Your task to perform on an android device: check the backup settings in the google photos Image 0: 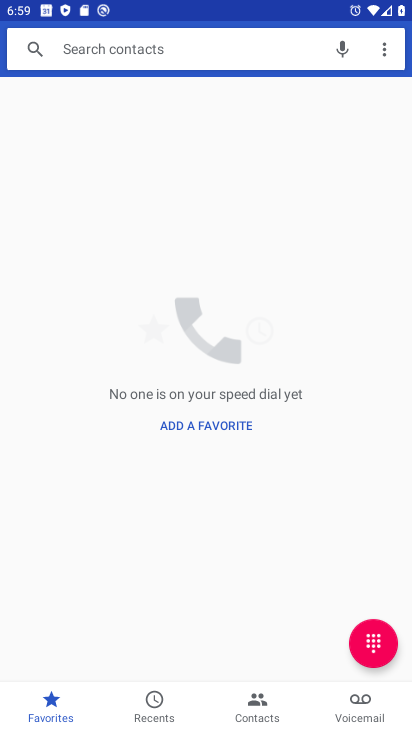
Step 0: press home button
Your task to perform on an android device: check the backup settings in the google photos Image 1: 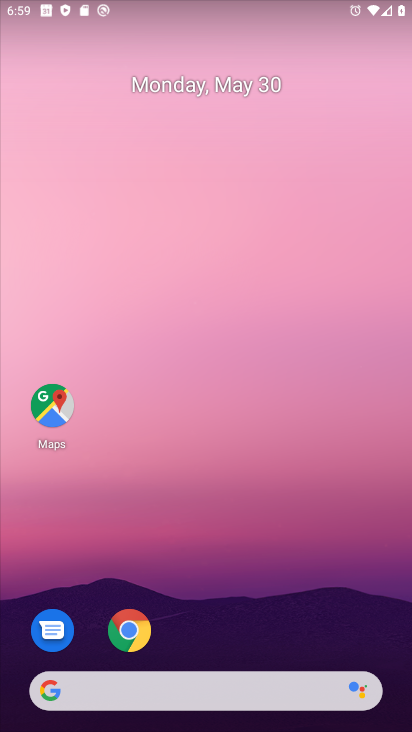
Step 1: drag from (331, 637) to (299, 7)
Your task to perform on an android device: check the backup settings in the google photos Image 2: 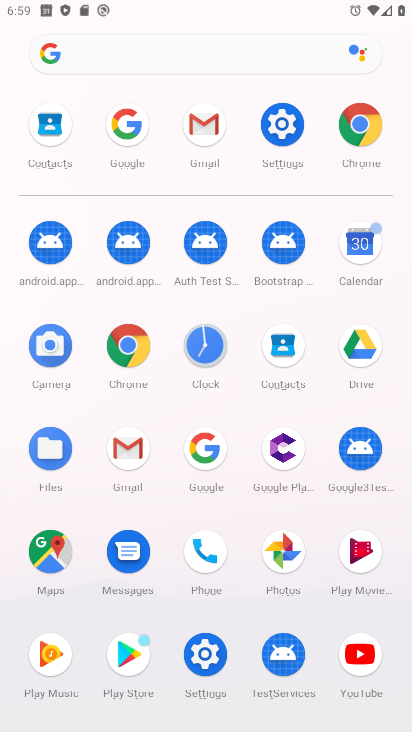
Step 2: click (289, 557)
Your task to perform on an android device: check the backup settings in the google photos Image 3: 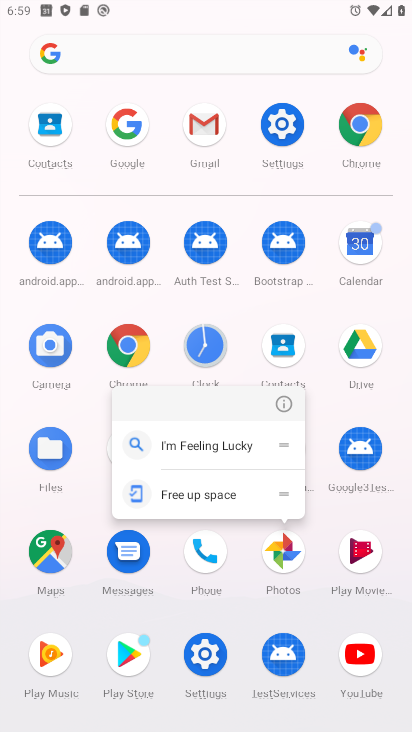
Step 3: click (289, 557)
Your task to perform on an android device: check the backup settings in the google photos Image 4: 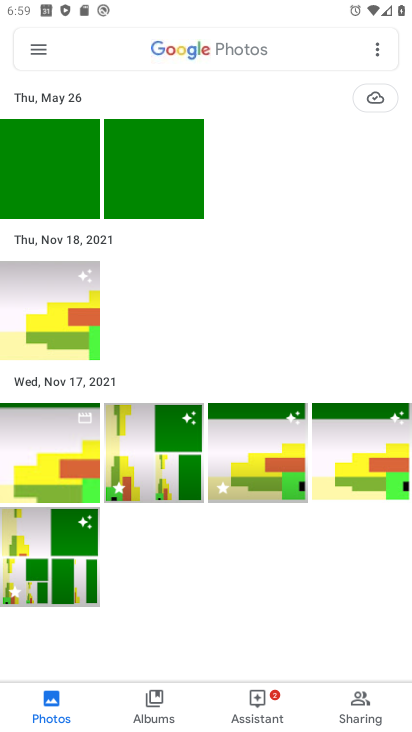
Step 4: click (35, 43)
Your task to perform on an android device: check the backup settings in the google photos Image 5: 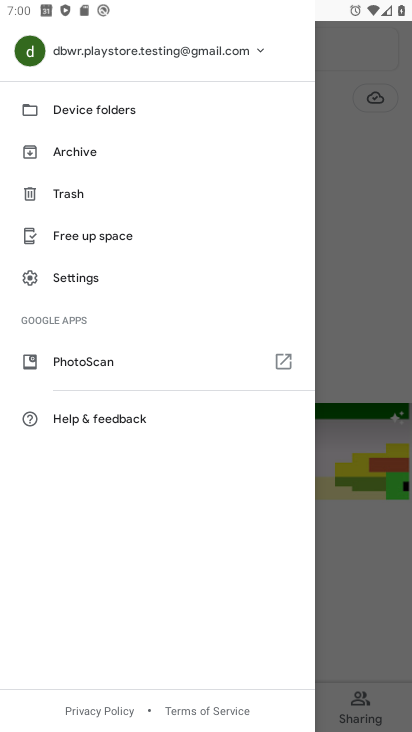
Step 5: click (78, 278)
Your task to perform on an android device: check the backup settings in the google photos Image 6: 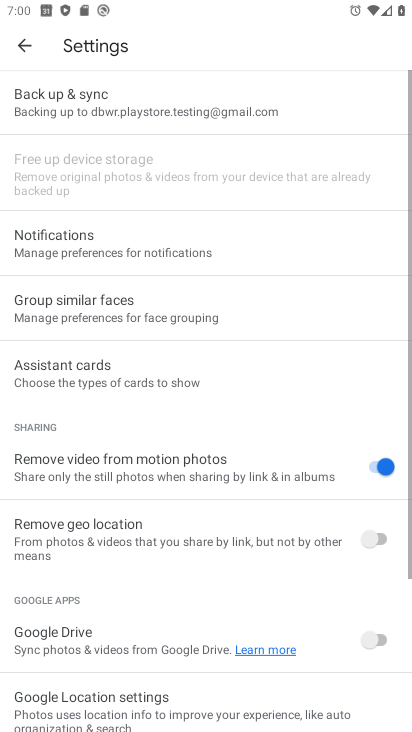
Step 6: click (151, 135)
Your task to perform on an android device: check the backup settings in the google photos Image 7: 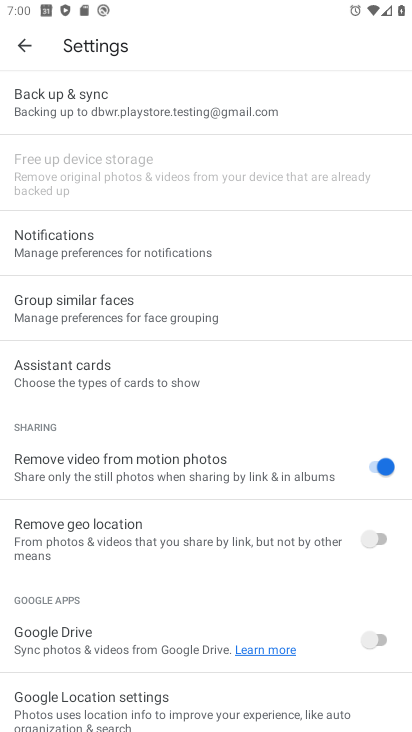
Step 7: click (167, 110)
Your task to perform on an android device: check the backup settings in the google photos Image 8: 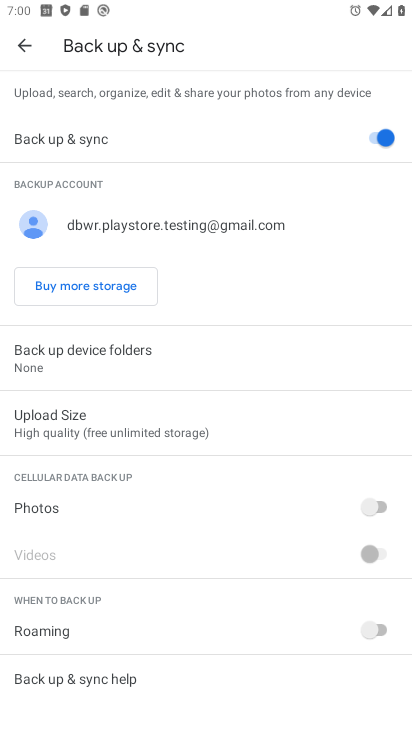
Step 8: task complete